Your task to perform on an android device: open a bookmark in the chrome app Image 0: 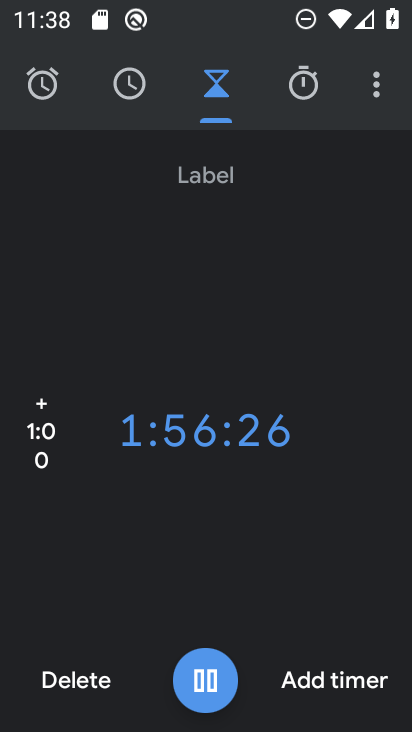
Step 0: click (69, 683)
Your task to perform on an android device: open a bookmark in the chrome app Image 1: 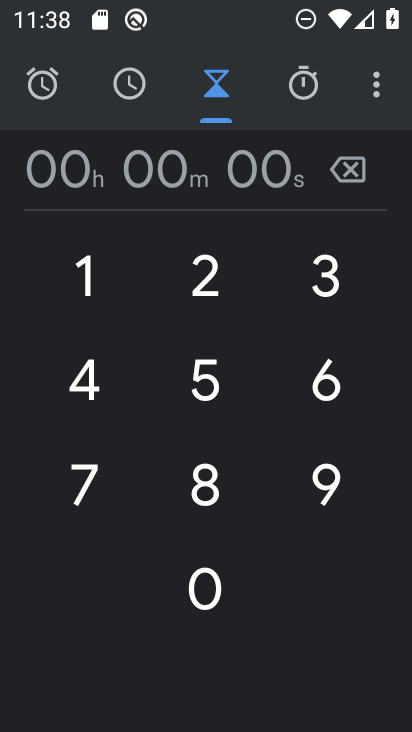
Step 1: press home button
Your task to perform on an android device: open a bookmark in the chrome app Image 2: 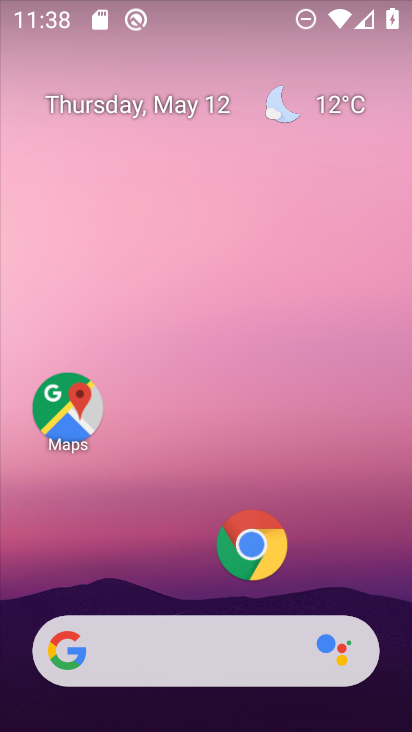
Step 2: click (248, 538)
Your task to perform on an android device: open a bookmark in the chrome app Image 3: 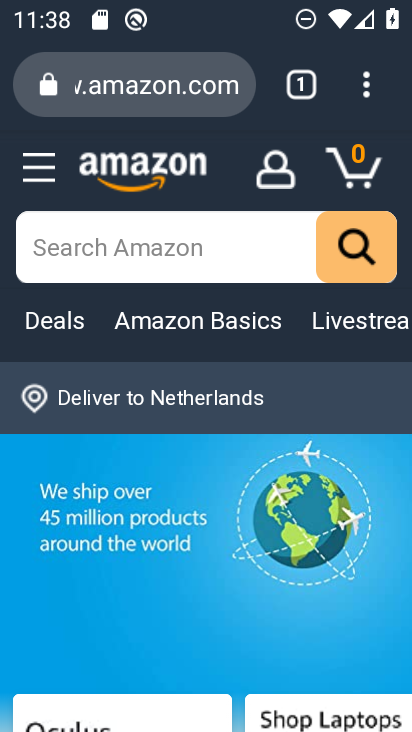
Step 3: click (362, 81)
Your task to perform on an android device: open a bookmark in the chrome app Image 4: 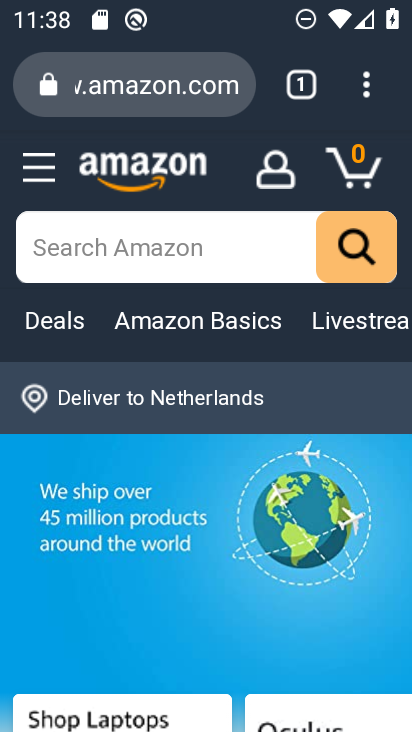
Step 4: click (366, 85)
Your task to perform on an android device: open a bookmark in the chrome app Image 5: 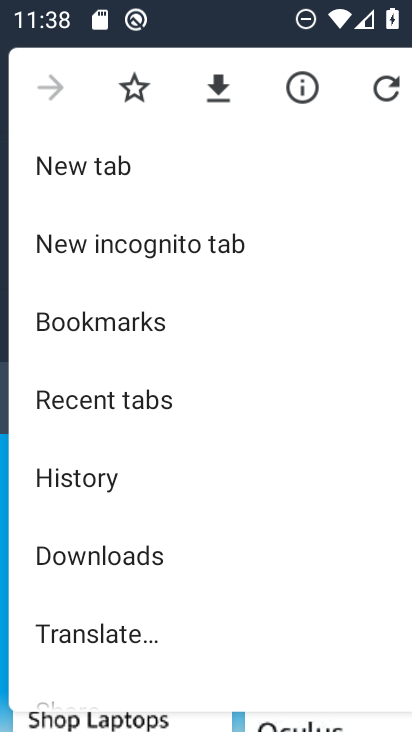
Step 5: click (177, 327)
Your task to perform on an android device: open a bookmark in the chrome app Image 6: 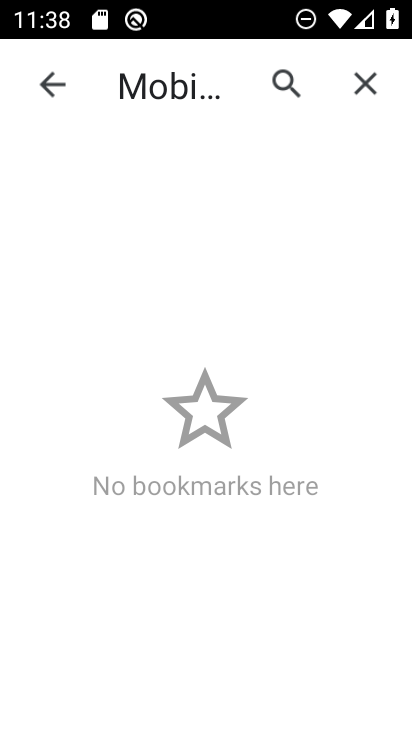
Step 6: task complete